Your task to perform on an android device: Open location settings Image 0: 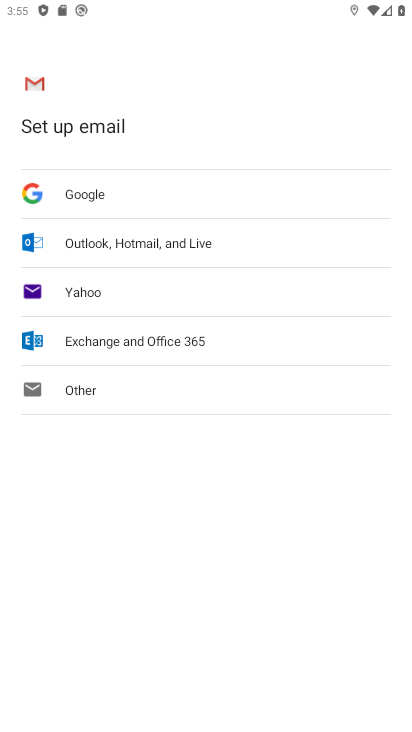
Step 0: press home button
Your task to perform on an android device: Open location settings Image 1: 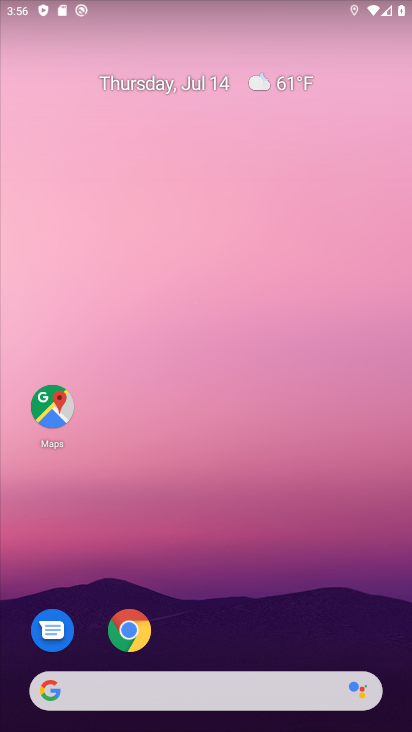
Step 1: drag from (347, 626) to (231, 160)
Your task to perform on an android device: Open location settings Image 2: 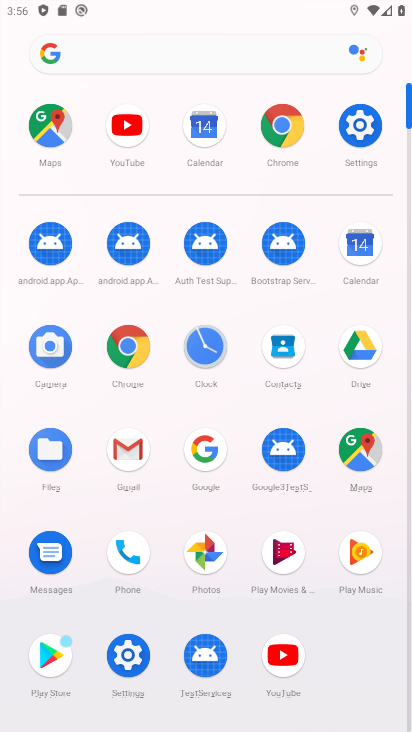
Step 2: click (363, 135)
Your task to perform on an android device: Open location settings Image 3: 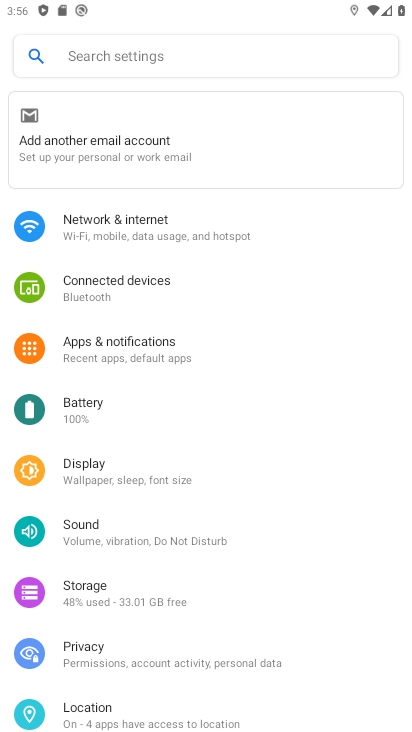
Step 3: click (263, 721)
Your task to perform on an android device: Open location settings Image 4: 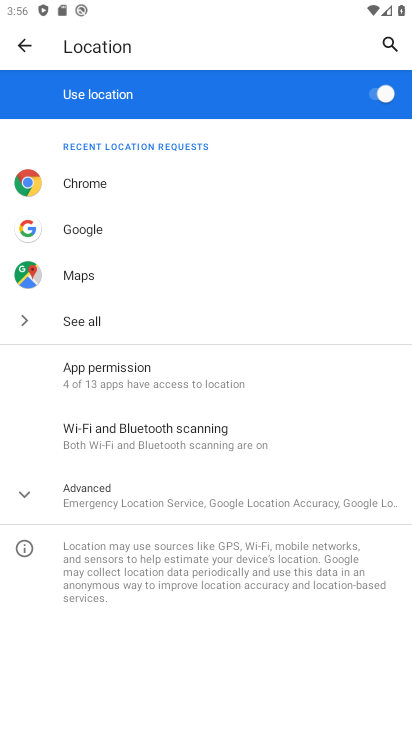
Step 4: task complete